Your task to perform on an android device: turn on javascript in the chrome app Image 0: 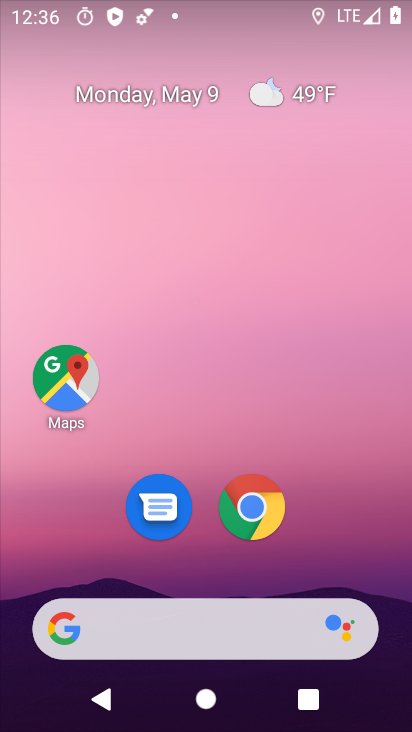
Step 0: click (247, 503)
Your task to perform on an android device: turn on javascript in the chrome app Image 1: 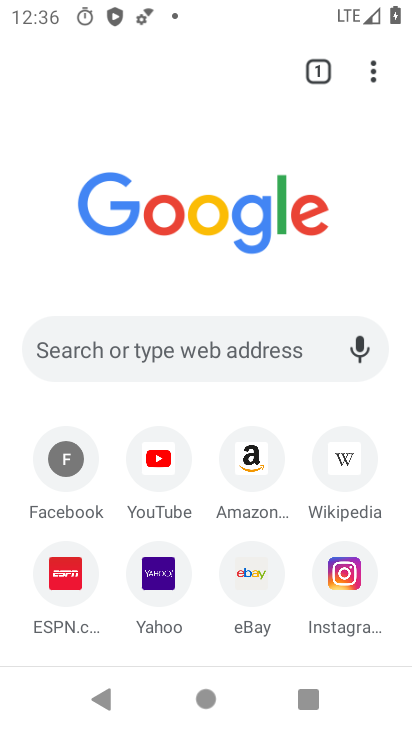
Step 1: click (372, 79)
Your task to perform on an android device: turn on javascript in the chrome app Image 2: 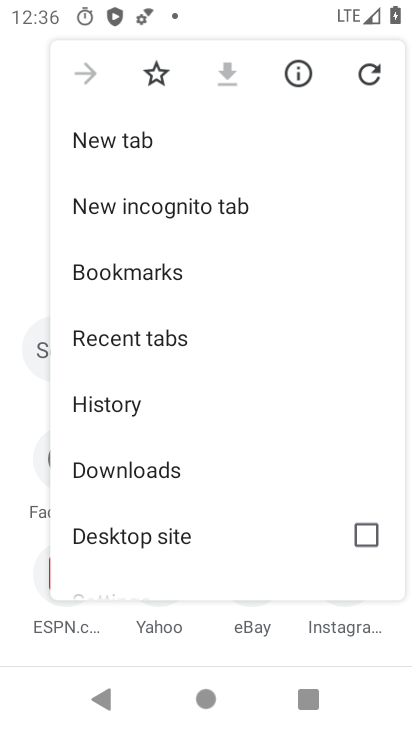
Step 2: drag from (176, 551) to (177, 296)
Your task to perform on an android device: turn on javascript in the chrome app Image 3: 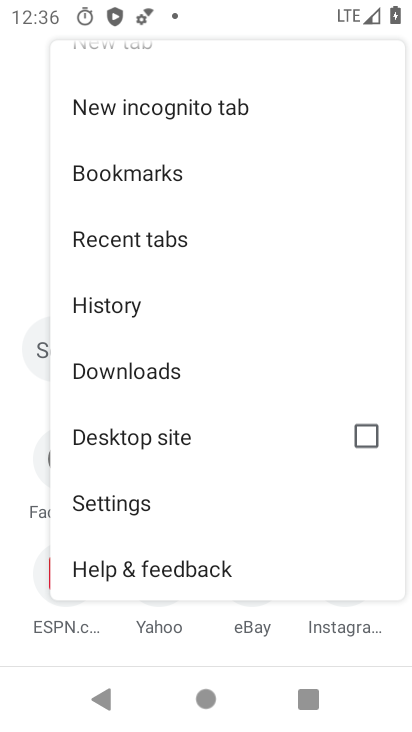
Step 3: click (113, 501)
Your task to perform on an android device: turn on javascript in the chrome app Image 4: 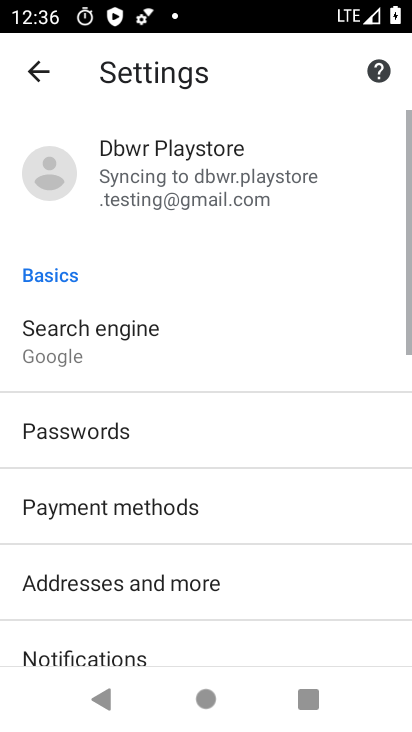
Step 4: drag from (164, 648) to (162, 408)
Your task to perform on an android device: turn on javascript in the chrome app Image 5: 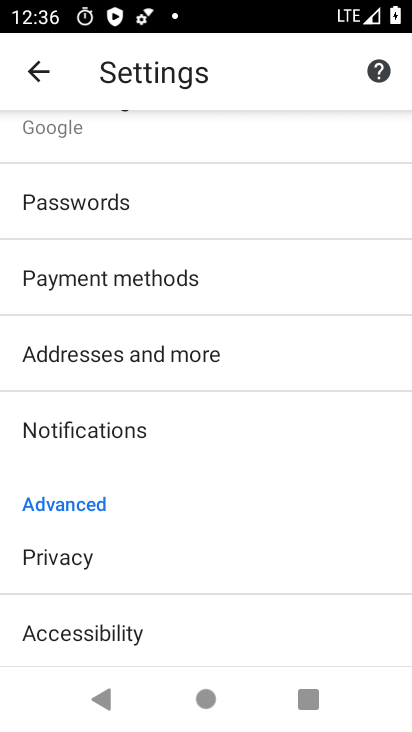
Step 5: drag from (181, 628) to (185, 388)
Your task to perform on an android device: turn on javascript in the chrome app Image 6: 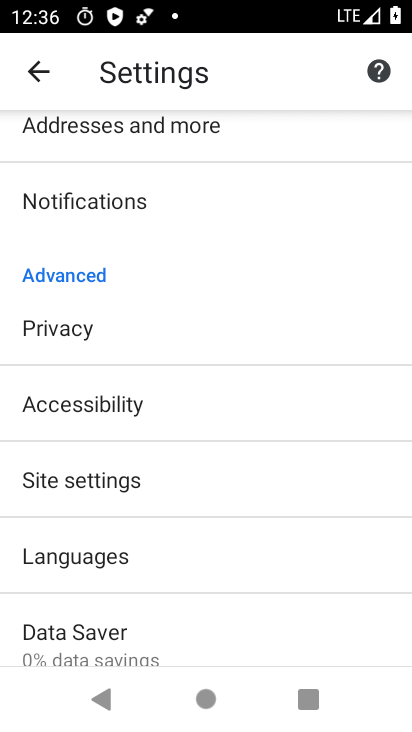
Step 6: click (89, 484)
Your task to perform on an android device: turn on javascript in the chrome app Image 7: 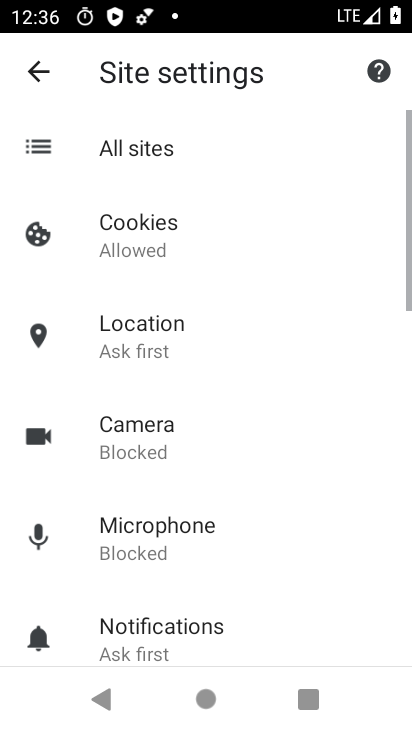
Step 7: drag from (158, 608) to (147, 232)
Your task to perform on an android device: turn on javascript in the chrome app Image 8: 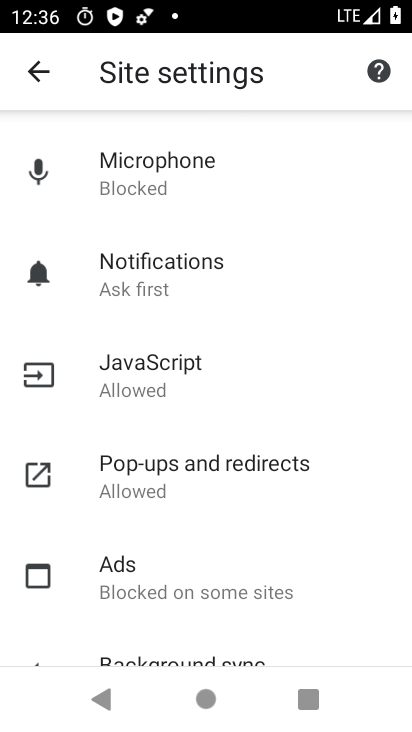
Step 8: click (128, 361)
Your task to perform on an android device: turn on javascript in the chrome app Image 9: 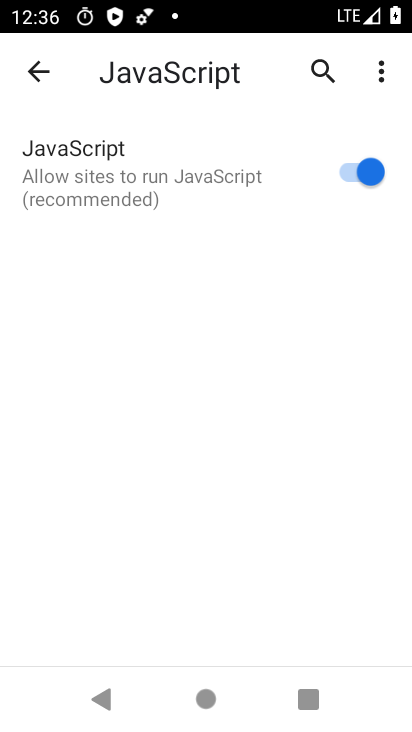
Step 9: task complete